Your task to perform on an android device: turn off priority inbox in the gmail app Image 0: 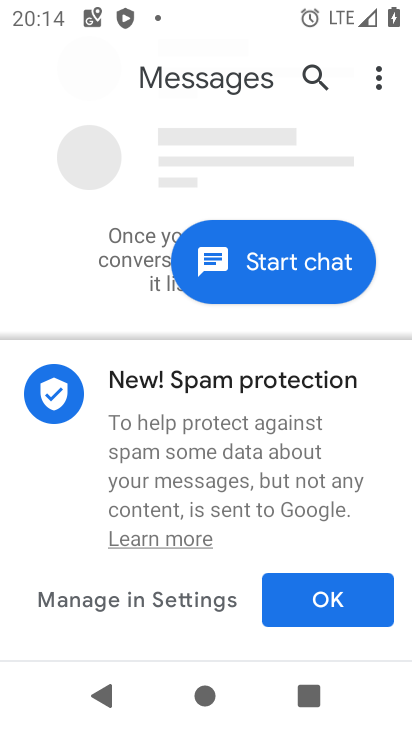
Step 0: press home button
Your task to perform on an android device: turn off priority inbox in the gmail app Image 1: 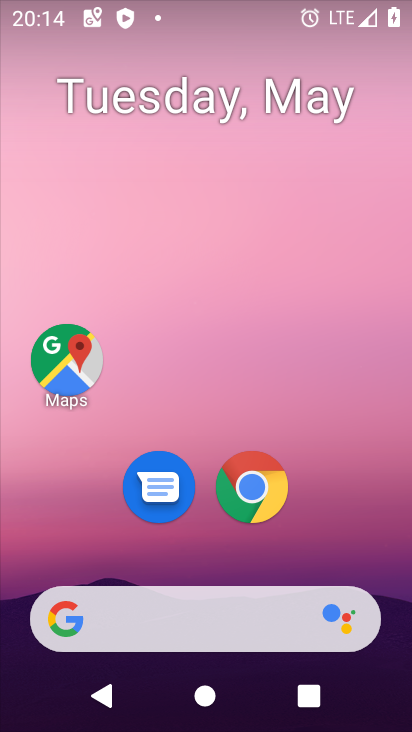
Step 1: drag from (349, 530) to (124, 7)
Your task to perform on an android device: turn off priority inbox in the gmail app Image 2: 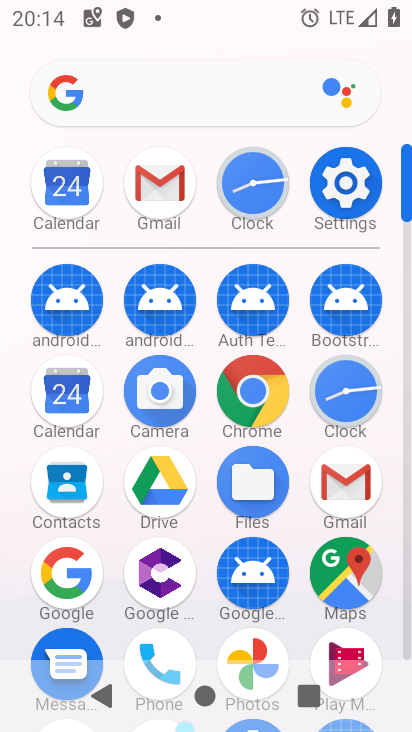
Step 2: click (169, 179)
Your task to perform on an android device: turn off priority inbox in the gmail app Image 3: 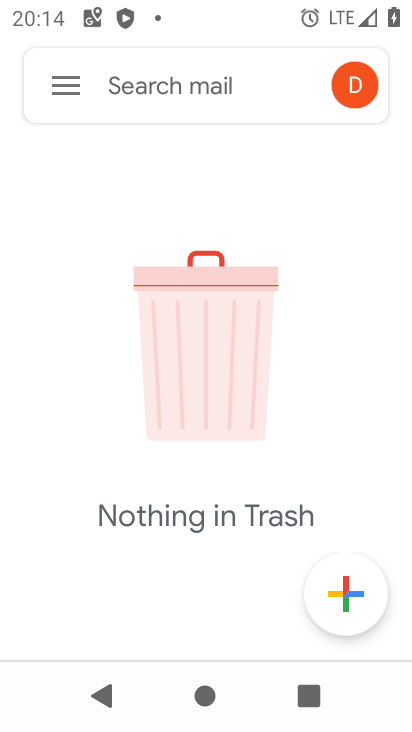
Step 3: click (61, 95)
Your task to perform on an android device: turn off priority inbox in the gmail app Image 4: 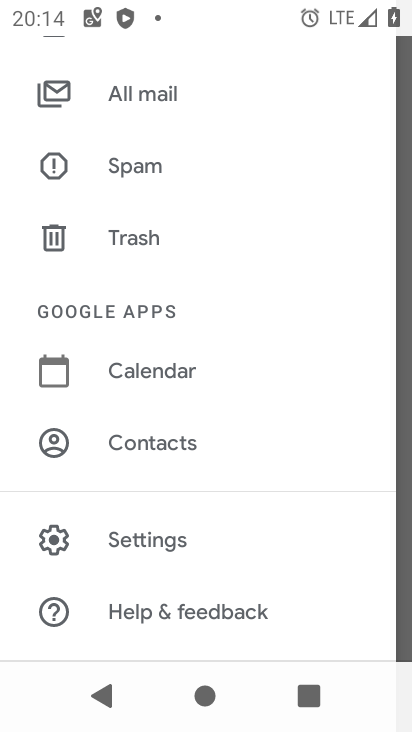
Step 4: click (136, 543)
Your task to perform on an android device: turn off priority inbox in the gmail app Image 5: 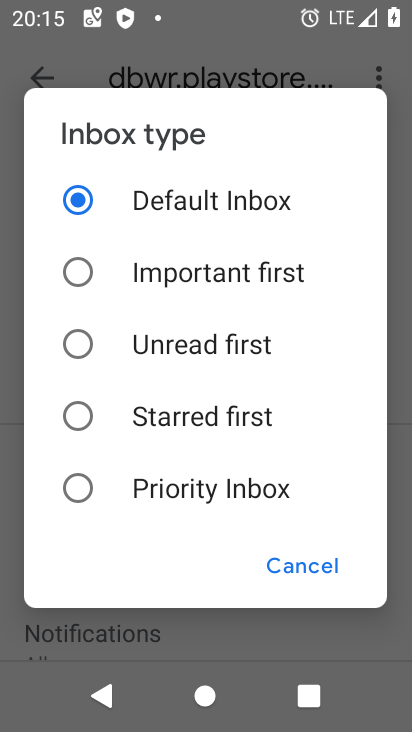
Step 5: task complete